Your task to perform on an android device: read, delete, or share a saved page in the chrome app Image 0: 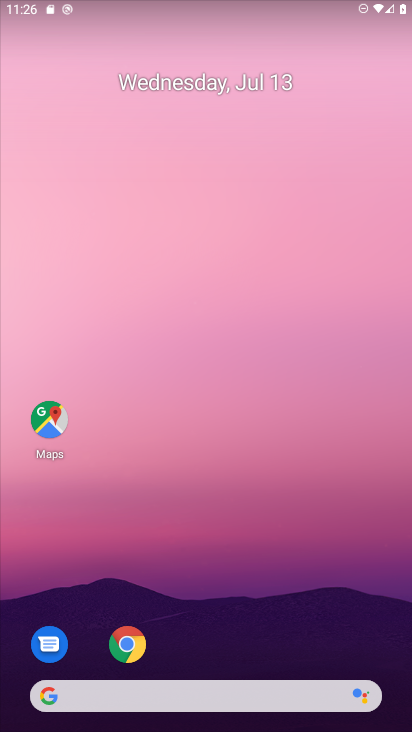
Step 0: click (127, 640)
Your task to perform on an android device: read, delete, or share a saved page in the chrome app Image 1: 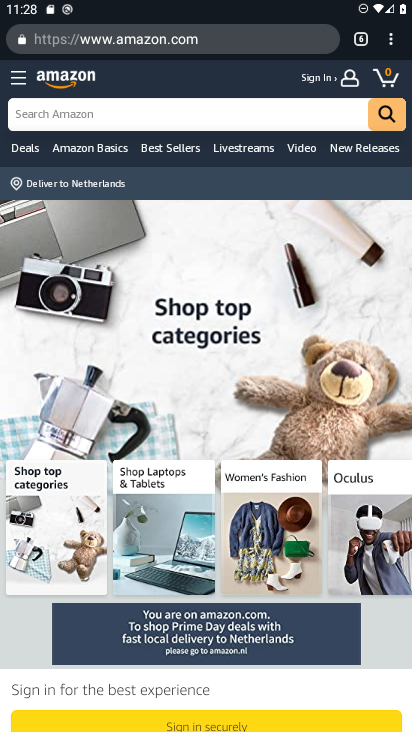
Step 1: click (387, 40)
Your task to perform on an android device: read, delete, or share a saved page in the chrome app Image 2: 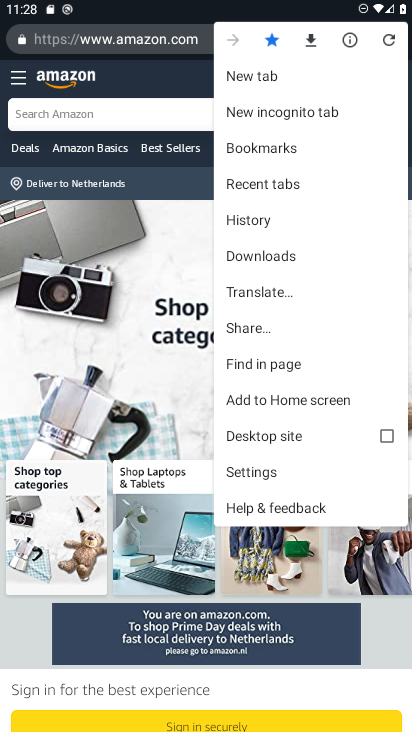
Step 2: click (251, 263)
Your task to perform on an android device: read, delete, or share a saved page in the chrome app Image 3: 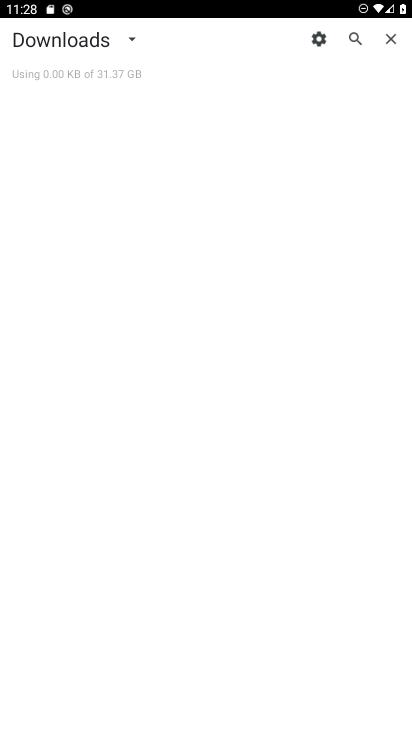
Step 3: task complete